Your task to perform on an android device: Show me the alarms in the clock app Image 0: 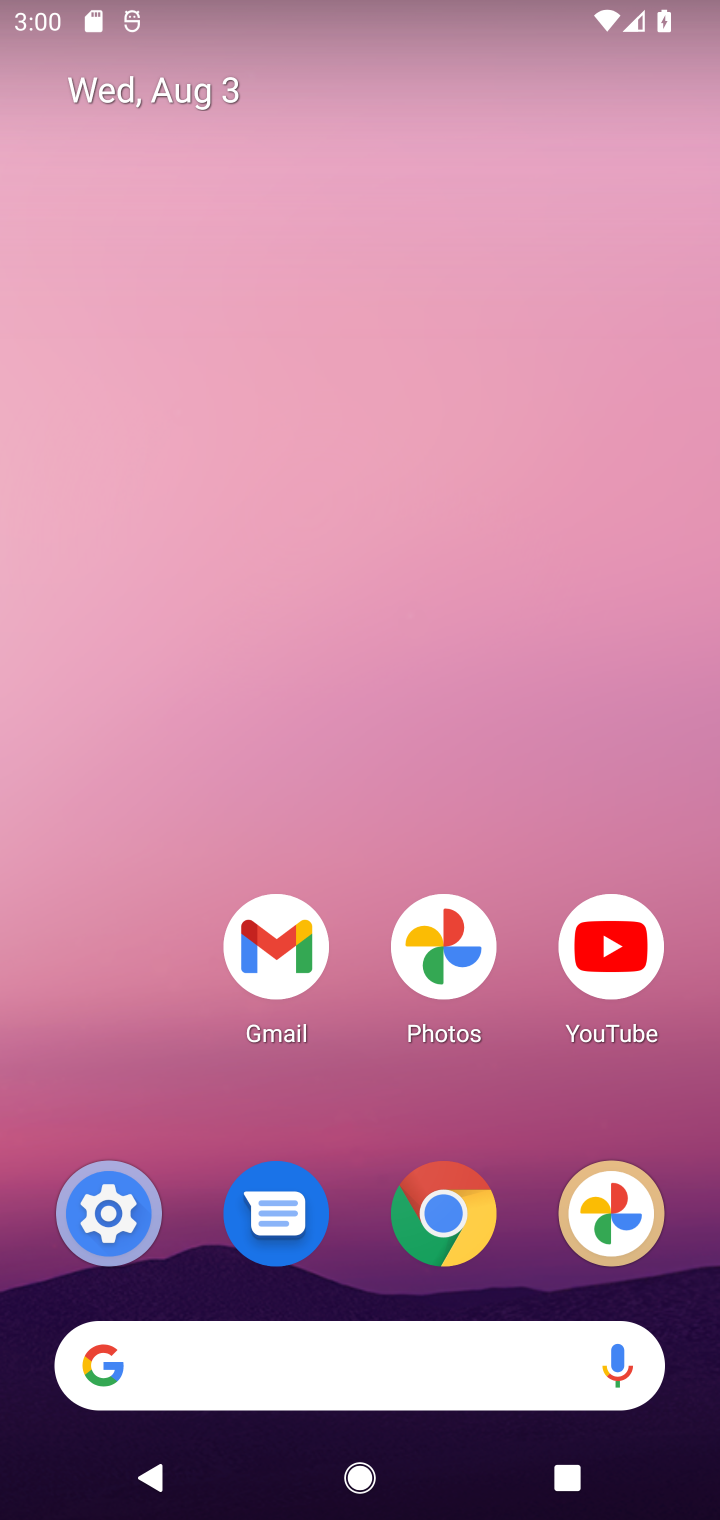
Step 0: press home button
Your task to perform on an android device: Show me the alarms in the clock app Image 1: 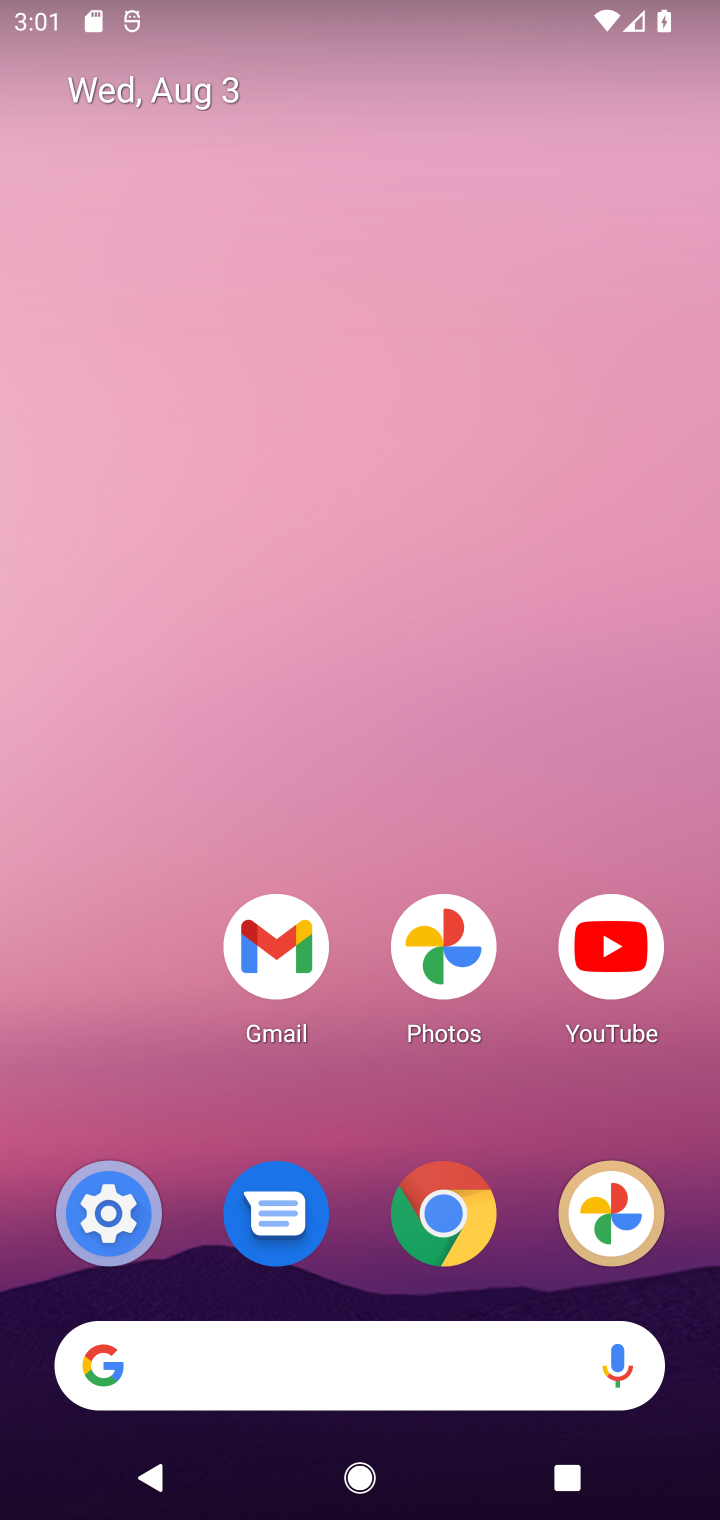
Step 1: drag from (356, 1144) to (415, 278)
Your task to perform on an android device: Show me the alarms in the clock app Image 2: 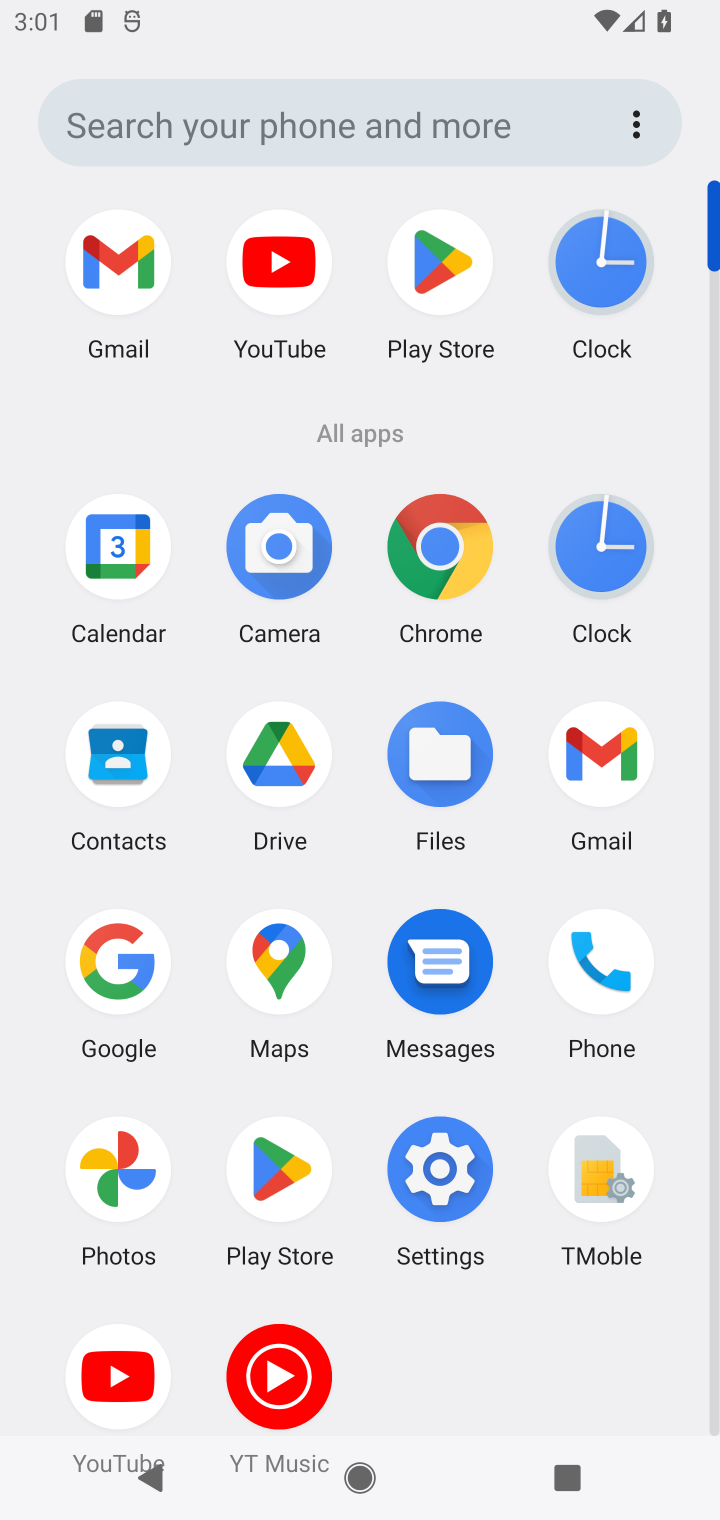
Step 2: click (608, 545)
Your task to perform on an android device: Show me the alarms in the clock app Image 3: 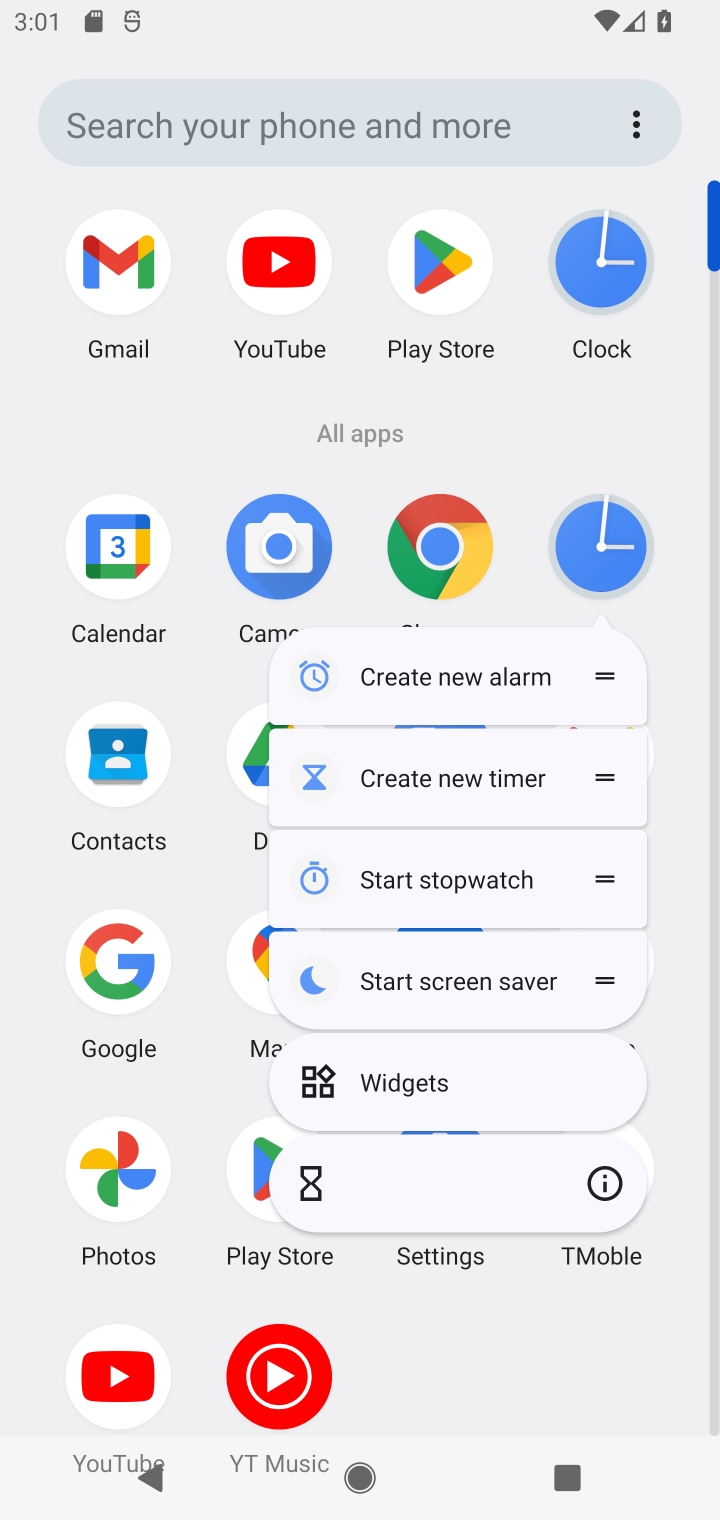
Step 3: click (631, 532)
Your task to perform on an android device: Show me the alarms in the clock app Image 4: 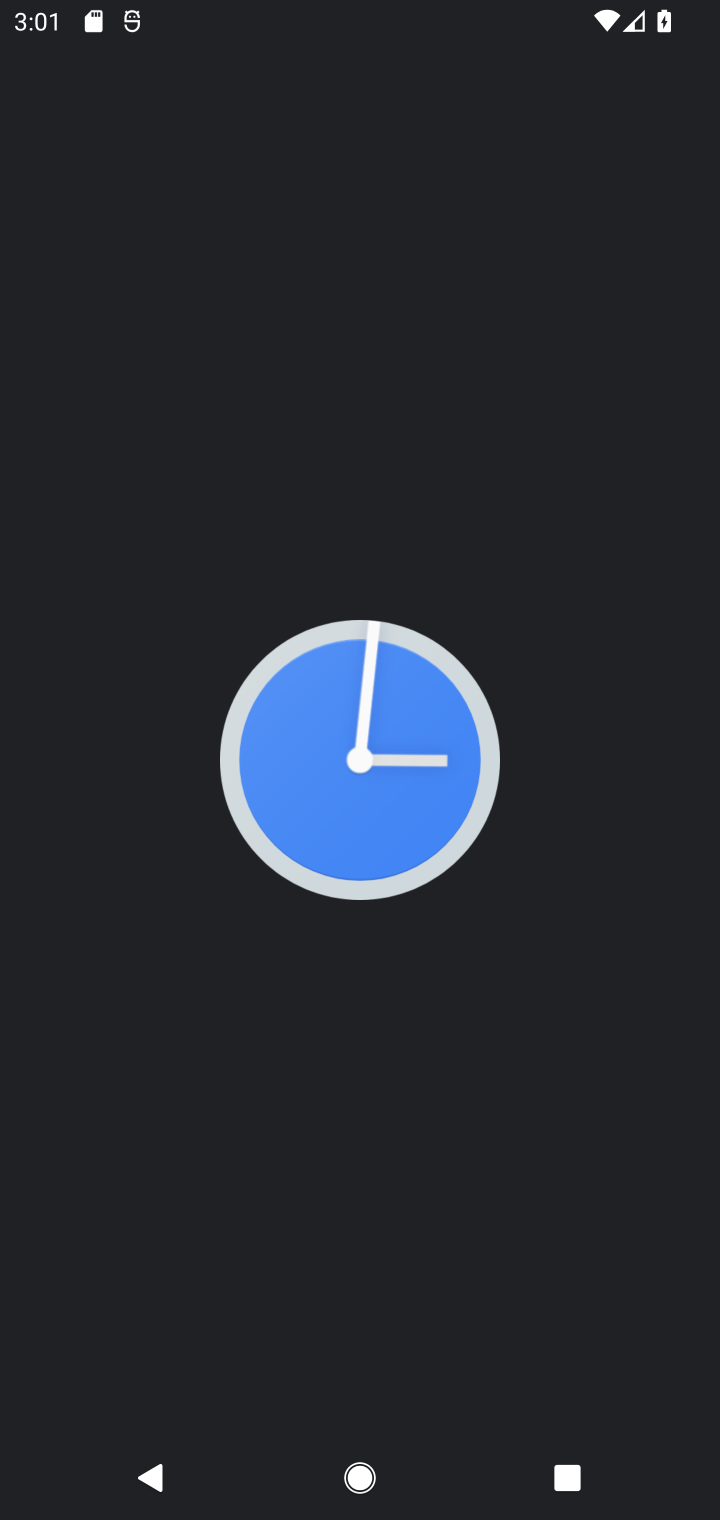
Step 4: click (330, 871)
Your task to perform on an android device: Show me the alarms in the clock app Image 5: 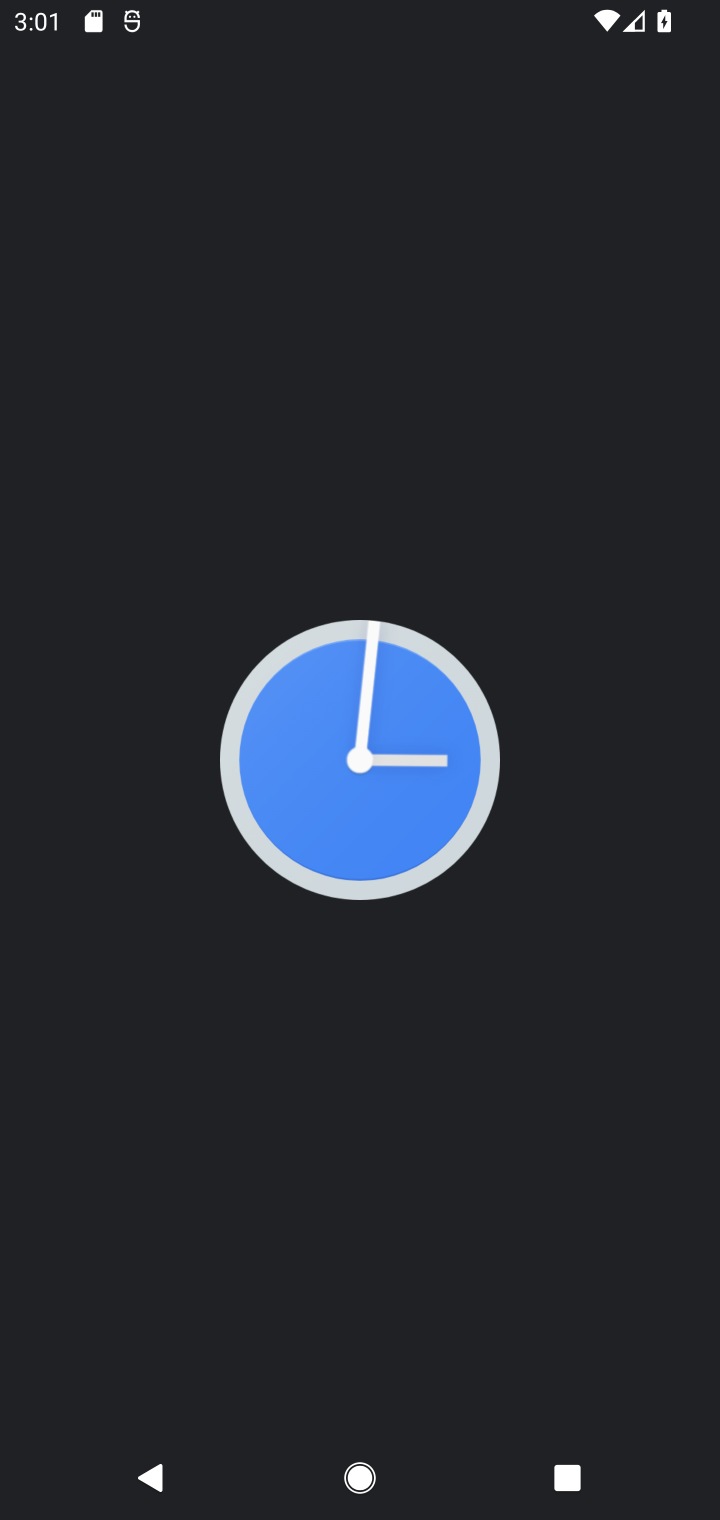
Step 5: click (330, 867)
Your task to perform on an android device: Show me the alarms in the clock app Image 6: 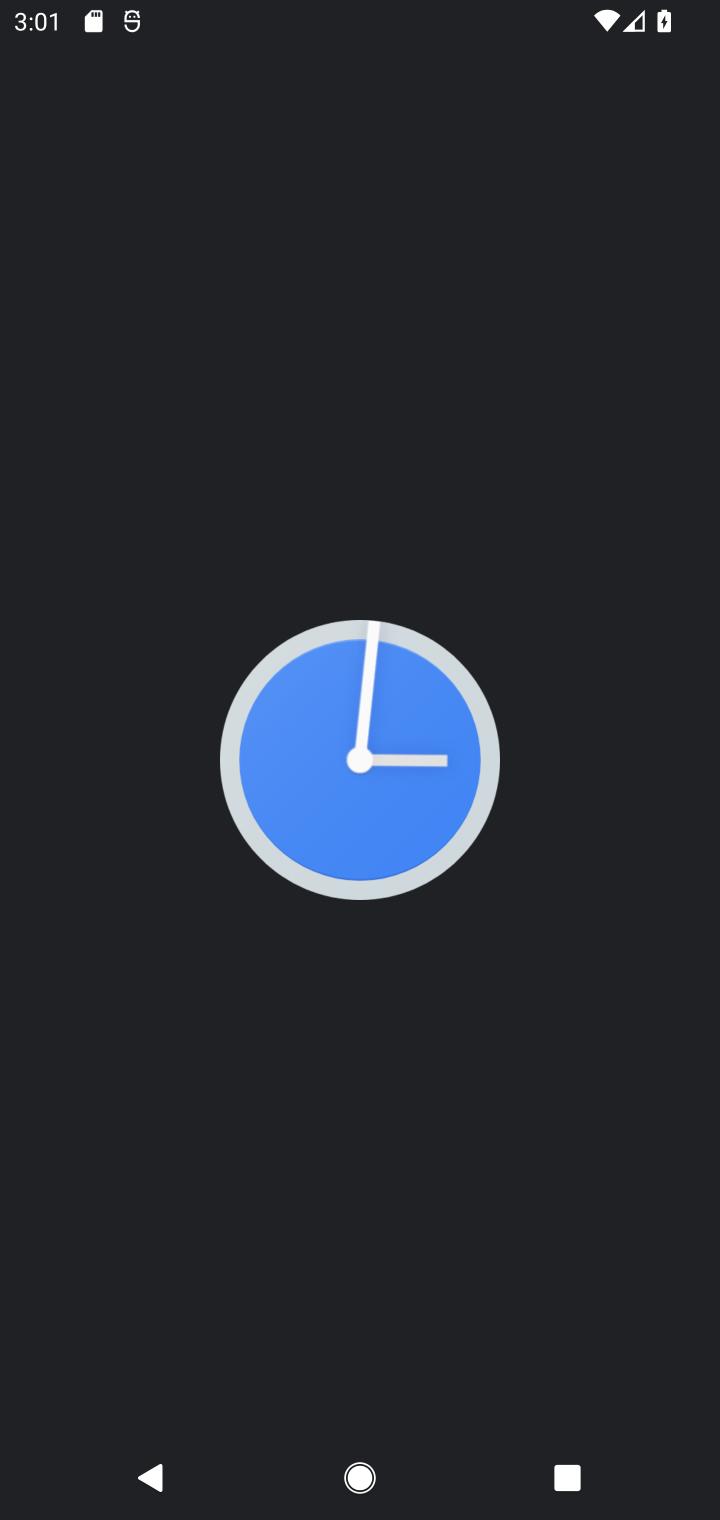
Step 6: click (338, 829)
Your task to perform on an android device: Show me the alarms in the clock app Image 7: 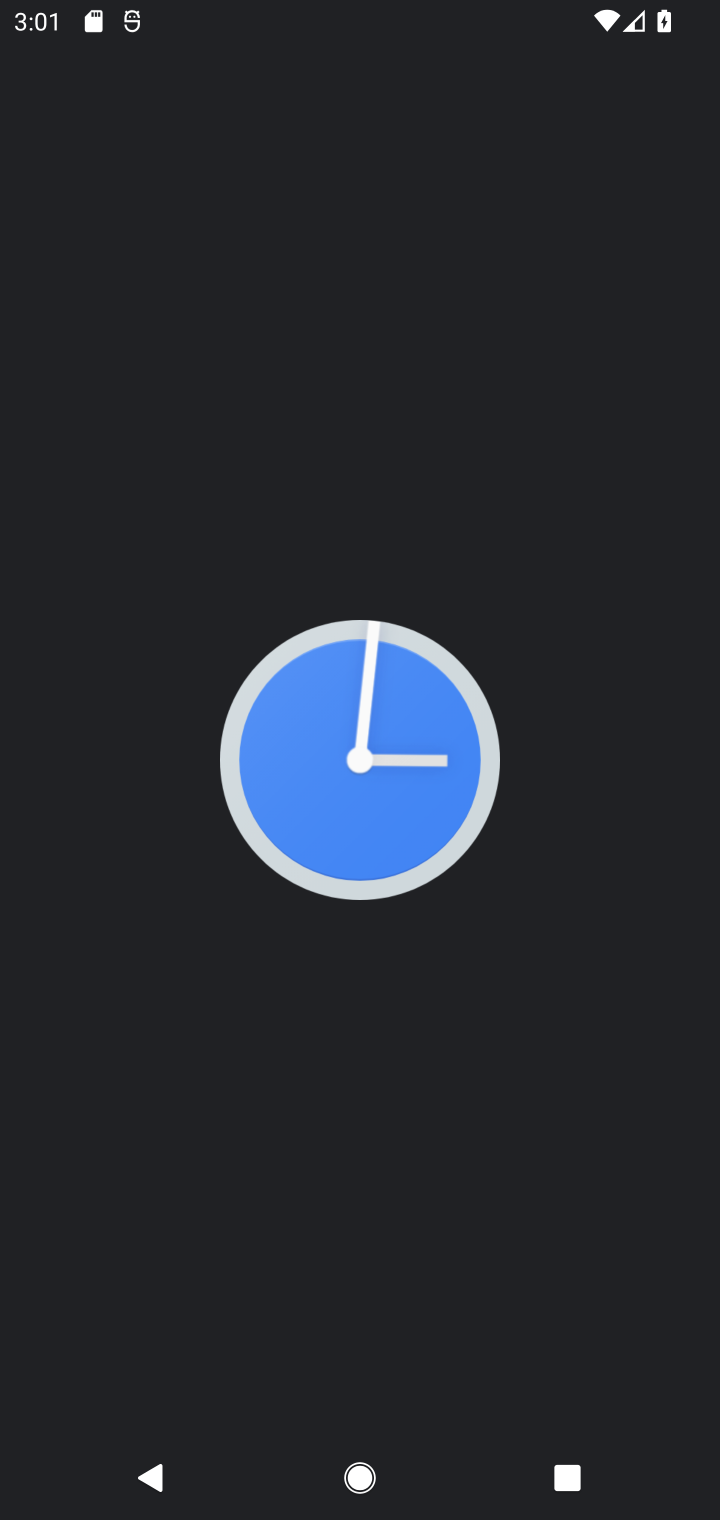
Step 7: click (278, 549)
Your task to perform on an android device: Show me the alarms in the clock app Image 8: 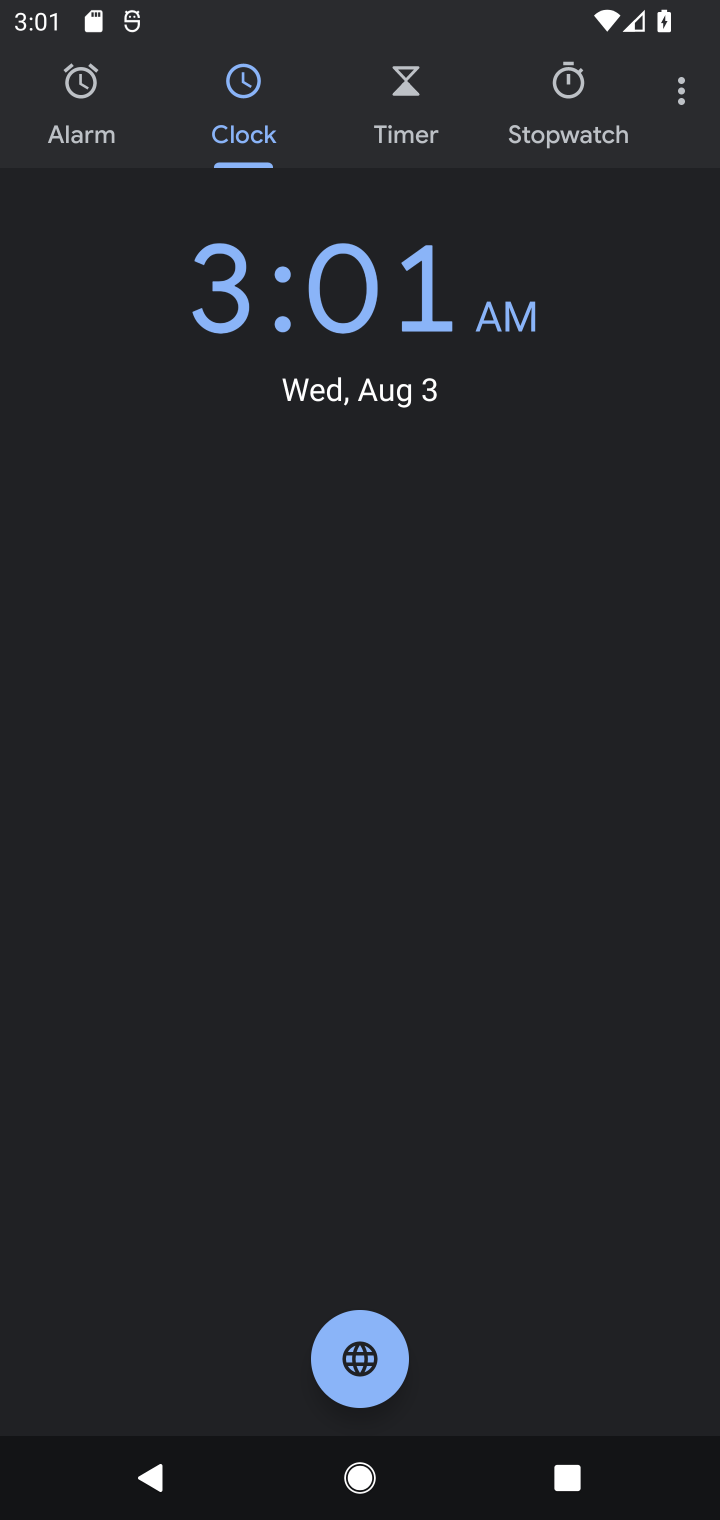
Step 8: click (79, 114)
Your task to perform on an android device: Show me the alarms in the clock app Image 9: 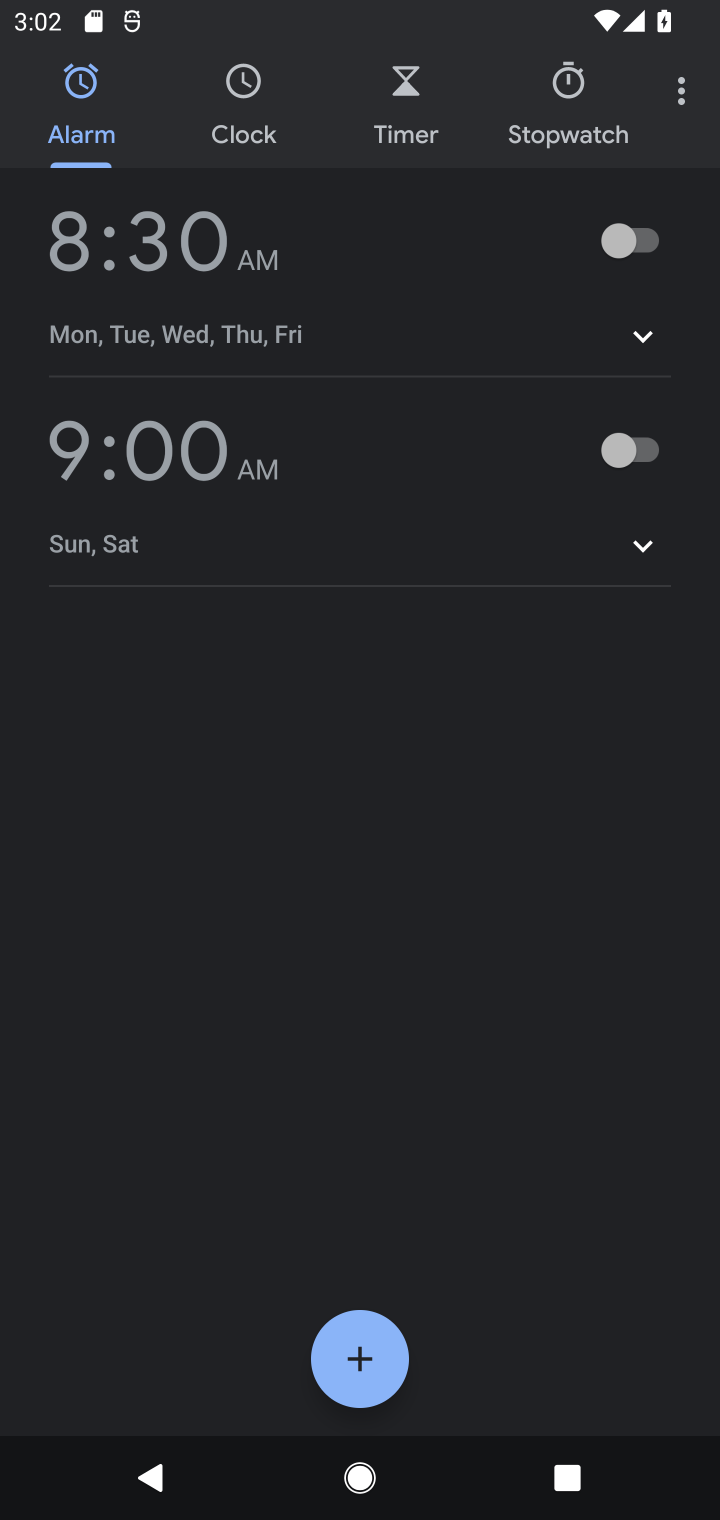
Step 9: task complete